Your task to perform on an android device: Open Google Maps Image 0: 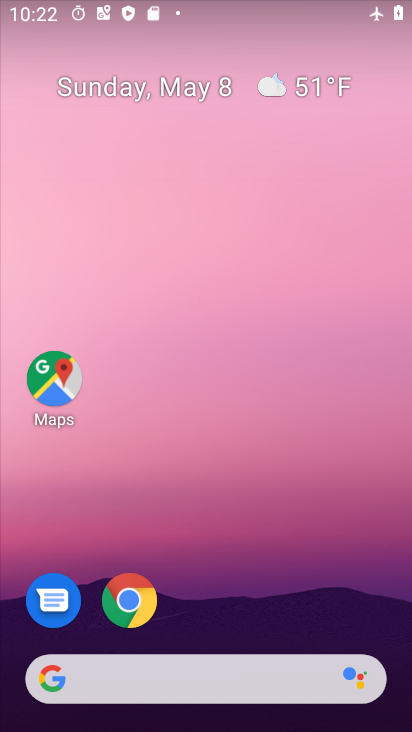
Step 0: drag from (256, 541) to (244, 1)
Your task to perform on an android device: Open Google Maps Image 1: 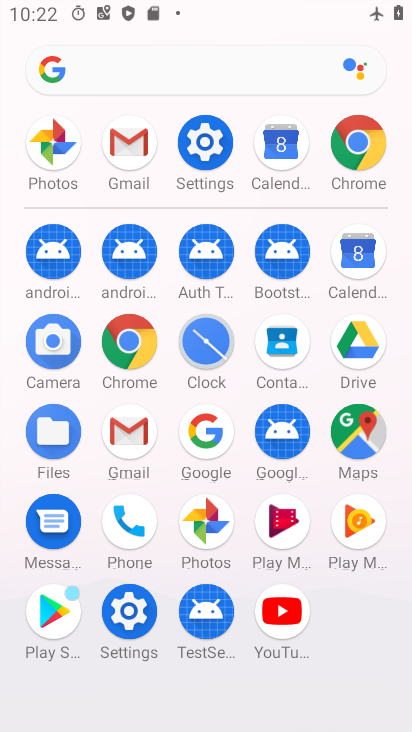
Step 1: click (361, 428)
Your task to perform on an android device: Open Google Maps Image 2: 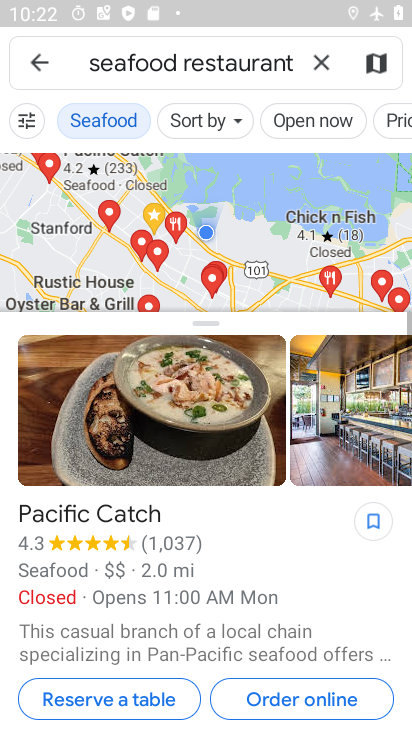
Step 2: click (323, 51)
Your task to perform on an android device: Open Google Maps Image 3: 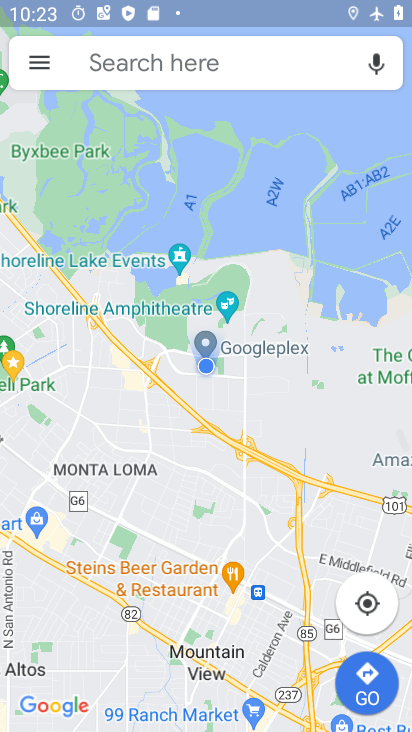
Step 3: task complete